Your task to perform on an android device: check android version Image 0: 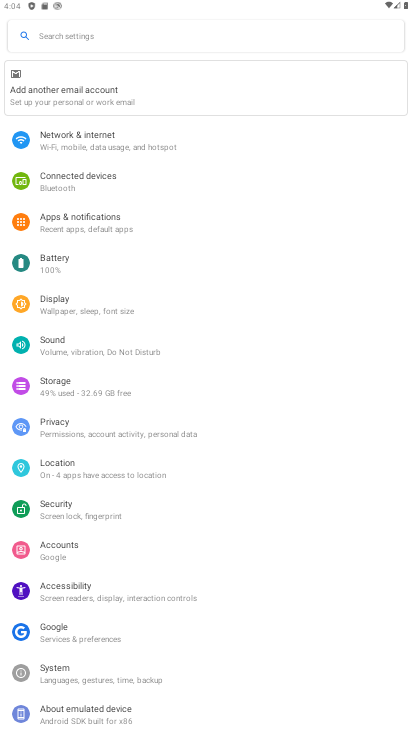
Step 0: drag from (235, 644) to (214, 157)
Your task to perform on an android device: check android version Image 1: 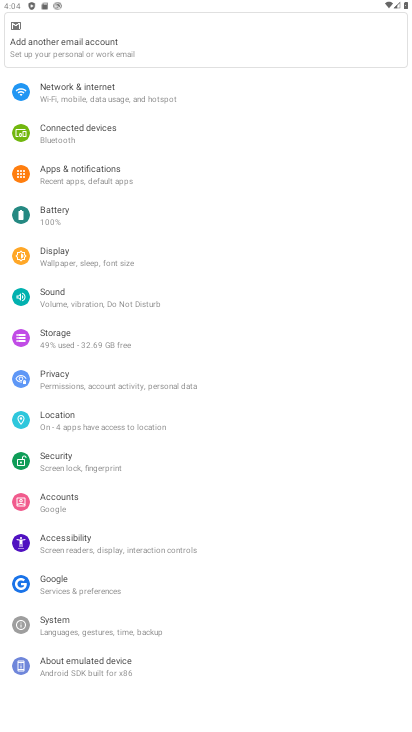
Step 1: click (76, 674)
Your task to perform on an android device: check android version Image 2: 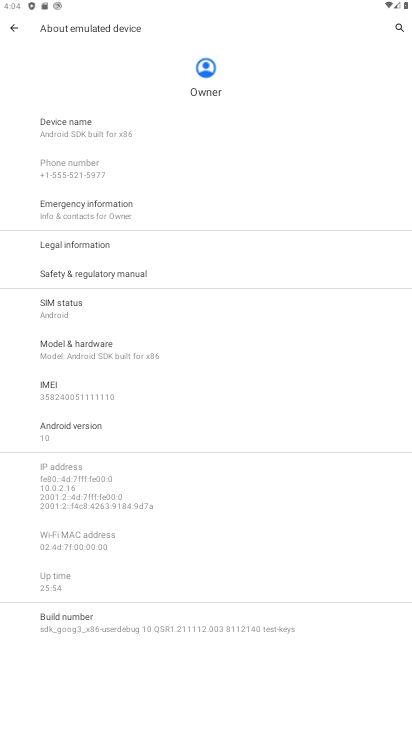
Step 2: click (106, 435)
Your task to perform on an android device: check android version Image 3: 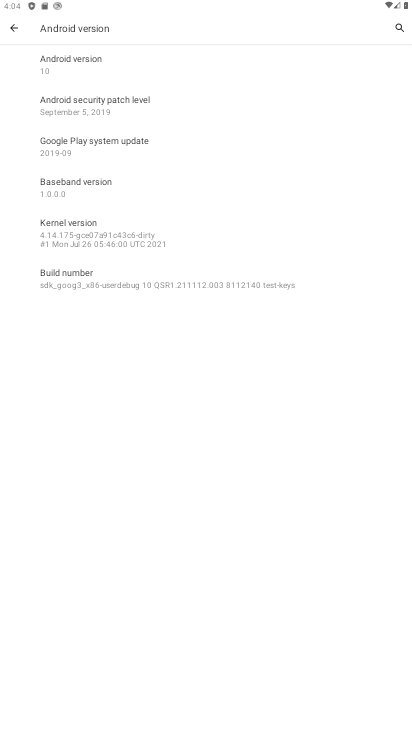
Step 3: click (73, 62)
Your task to perform on an android device: check android version Image 4: 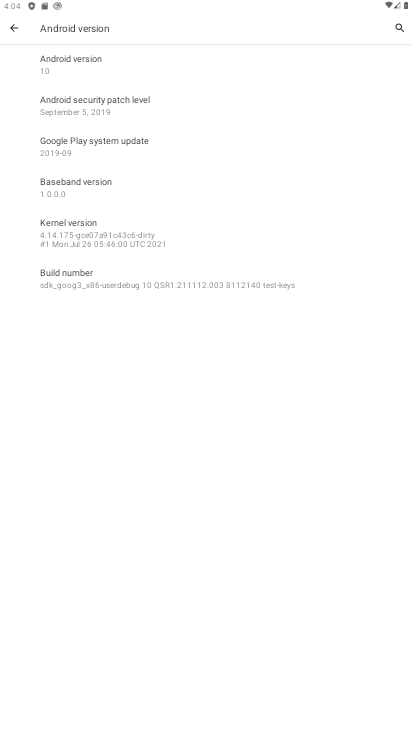
Step 4: task complete